Your task to perform on an android device: choose inbox layout in the gmail app Image 0: 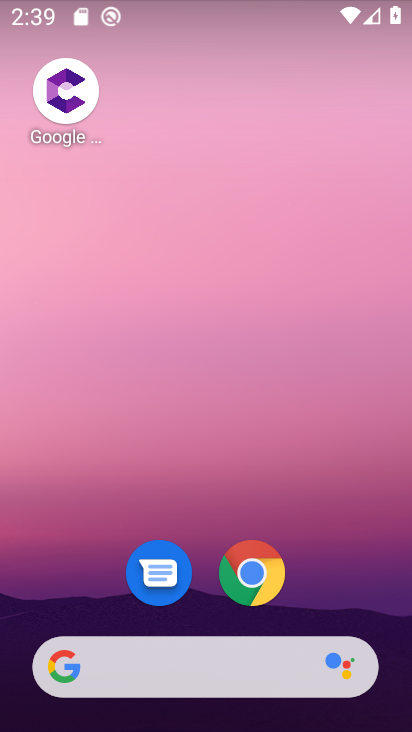
Step 0: drag from (200, 535) to (102, 26)
Your task to perform on an android device: choose inbox layout in the gmail app Image 1: 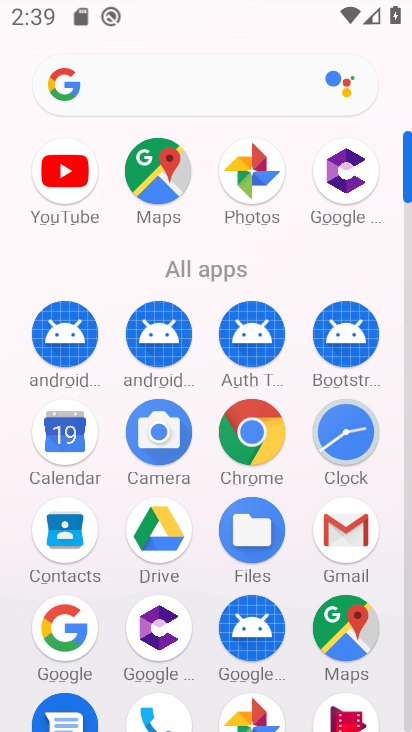
Step 1: click (343, 508)
Your task to perform on an android device: choose inbox layout in the gmail app Image 2: 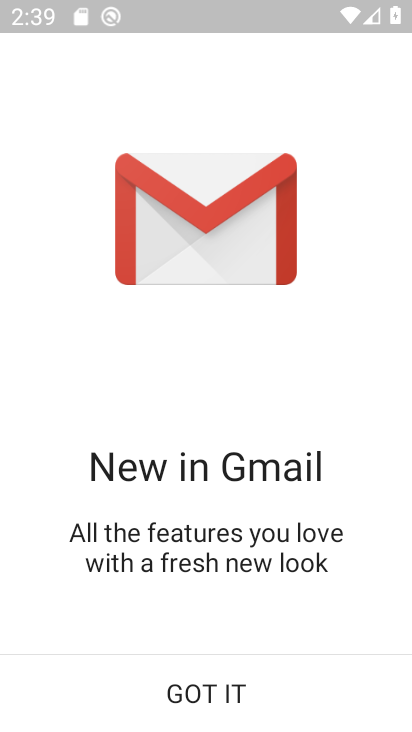
Step 2: click (198, 711)
Your task to perform on an android device: choose inbox layout in the gmail app Image 3: 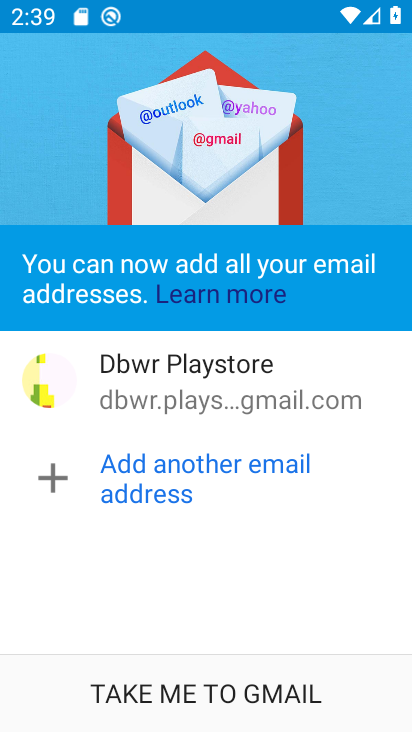
Step 3: click (198, 711)
Your task to perform on an android device: choose inbox layout in the gmail app Image 4: 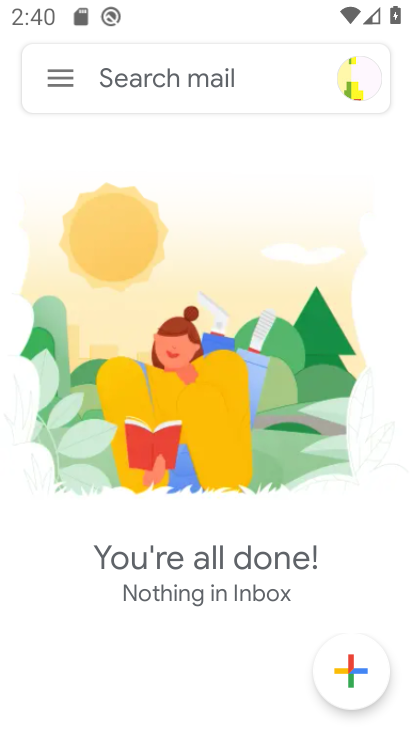
Step 4: click (72, 73)
Your task to perform on an android device: choose inbox layout in the gmail app Image 5: 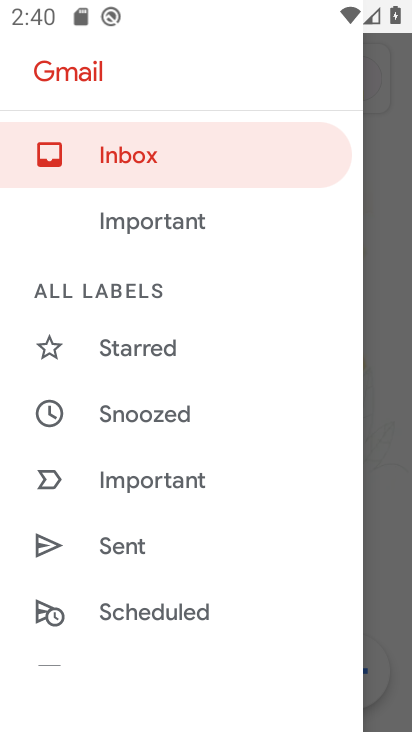
Step 5: drag from (127, 584) to (113, 40)
Your task to perform on an android device: choose inbox layout in the gmail app Image 6: 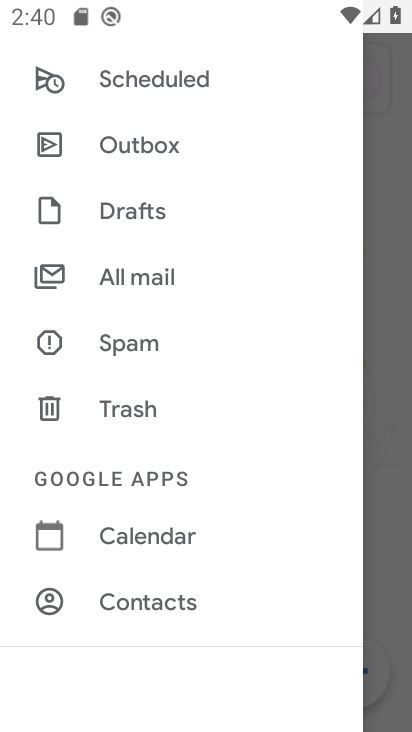
Step 6: drag from (98, 501) to (146, 9)
Your task to perform on an android device: choose inbox layout in the gmail app Image 7: 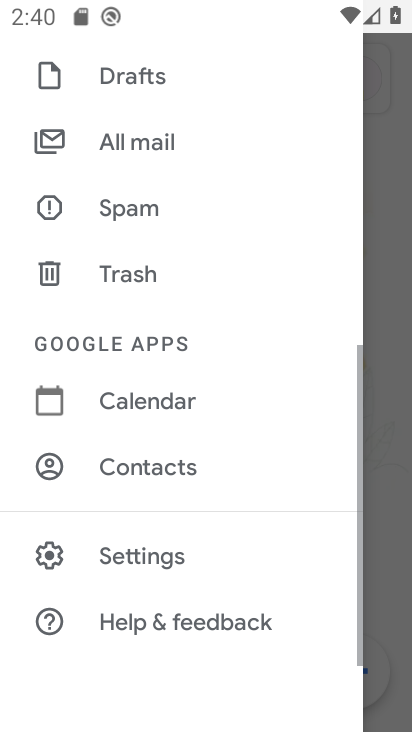
Step 7: click (144, 555)
Your task to perform on an android device: choose inbox layout in the gmail app Image 8: 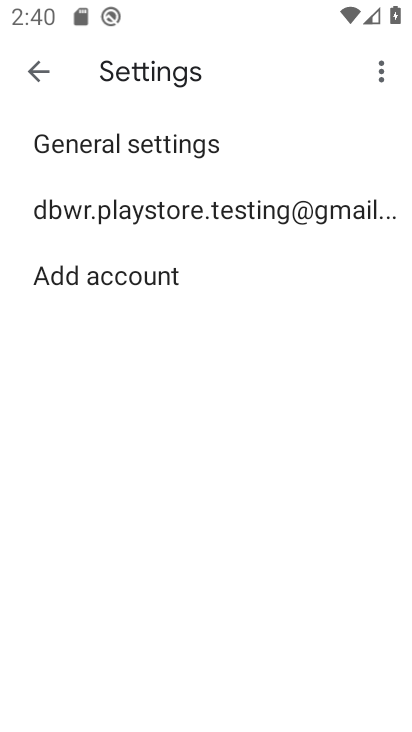
Step 8: click (197, 200)
Your task to perform on an android device: choose inbox layout in the gmail app Image 9: 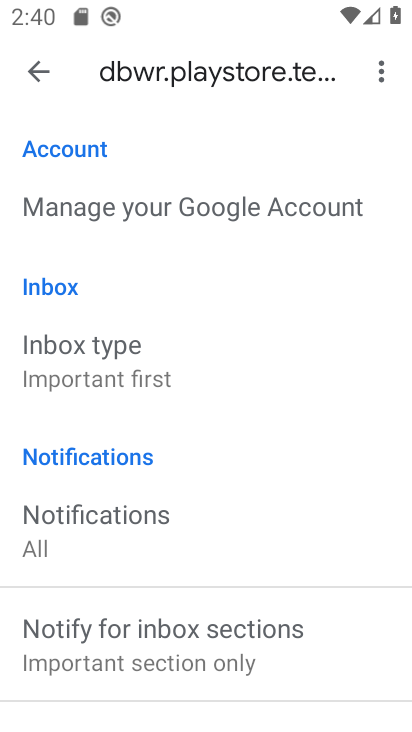
Step 9: click (112, 365)
Your task to perform on an android device: choose inbox layout in the gmail app Image 10: 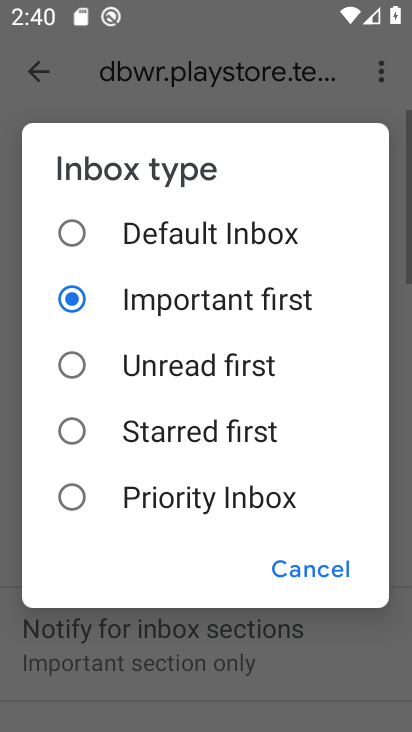
Step 10: click (112, 365)
Your task to perform on an android device: choose inbox layout in the gmail app Image 11: 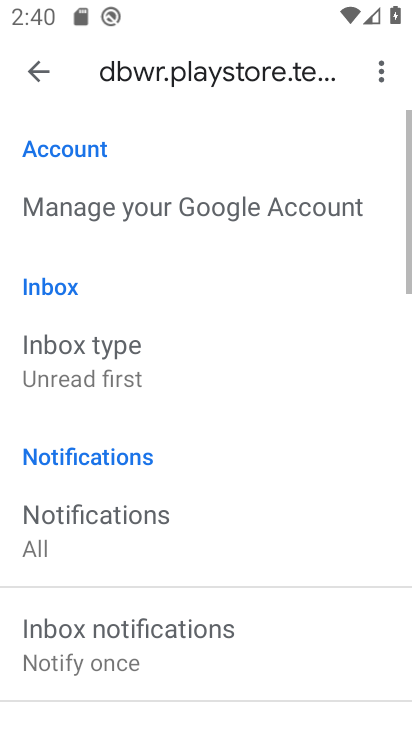
Step 11: task complete